Your task to perform on an android device: Open settings on Google Maps Image 0: 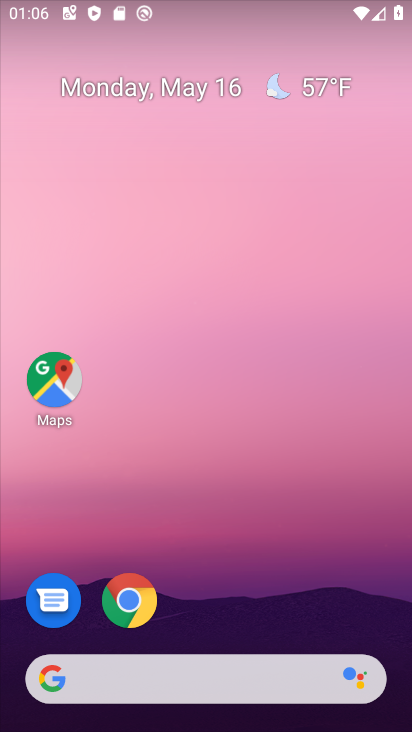
Step 0: click (64, 383)
Your task to perform on an android device: Open settings on Google Maps Image 1: 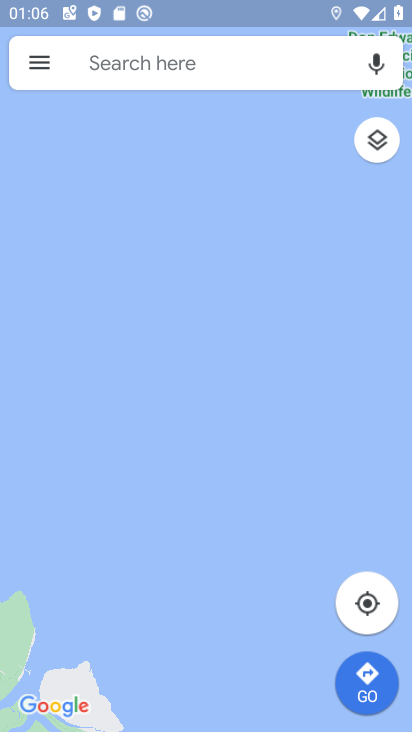
Step 1: task complete